Your task to perform on an android device: Show me popular videos on Youtube Image 0: 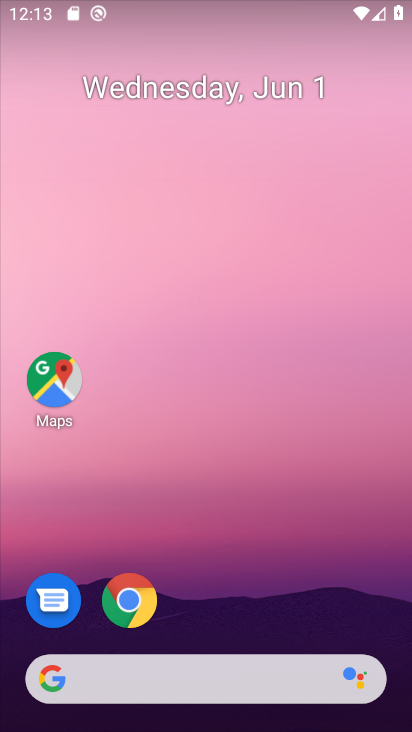
Step 0: press home button
Your task to perform on an android device: Show me popular videos on Youtube Image 1: 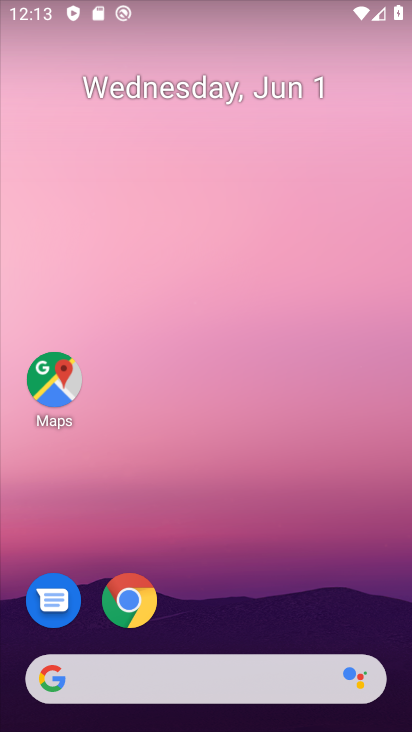
Step 1: click (263, 12)
Your task to perform on an android device: Show me popular videos on Youtube Image 2: 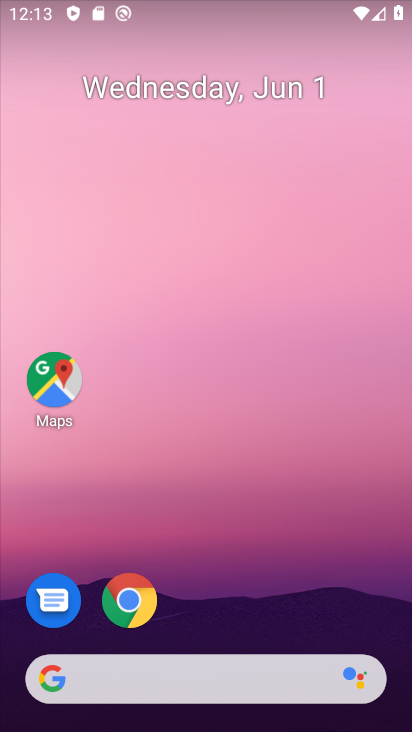
Step 2: drag from (226, 631) to (217, 97)
Your task to perform on an android device: Show me popular videos on Youtube Image 3: 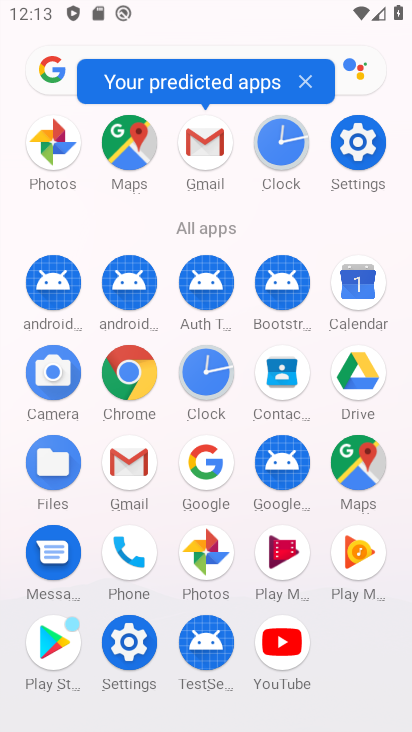
Step 3: click (281, 636)
Your task to perform on an android device: Show me popular videos on Youtube Image 4: 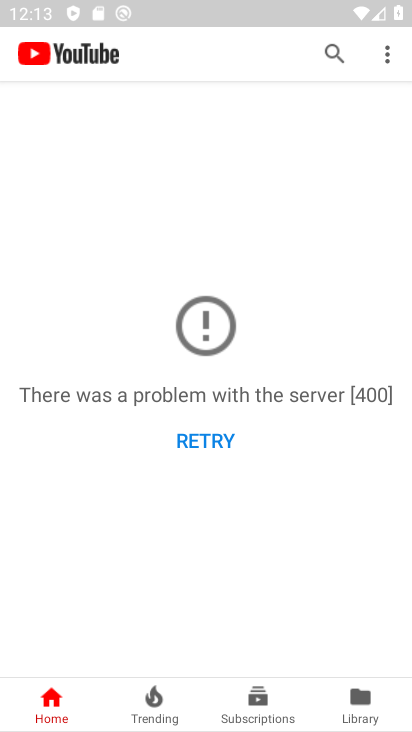
Step 4: click (149, 696)
Your task to perform on an android device: Show me popular videos on Youtube Image 5: 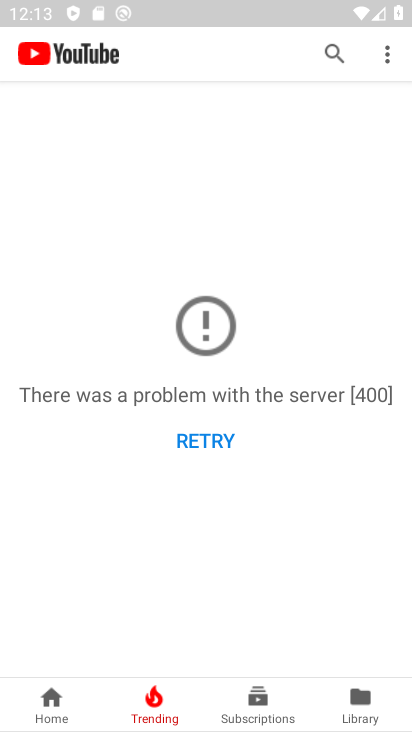
Step 5: task complete